Your task to perform on an android device: Show me recent news Image 0: 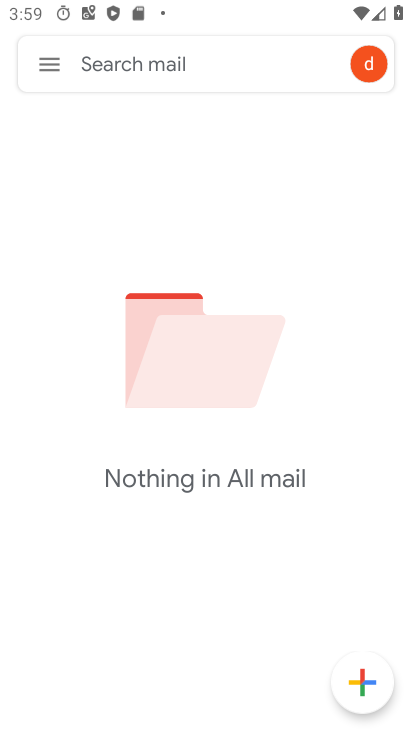
Step 0: press home button
Your task to perform on an android device: Show me recent news Image 1: 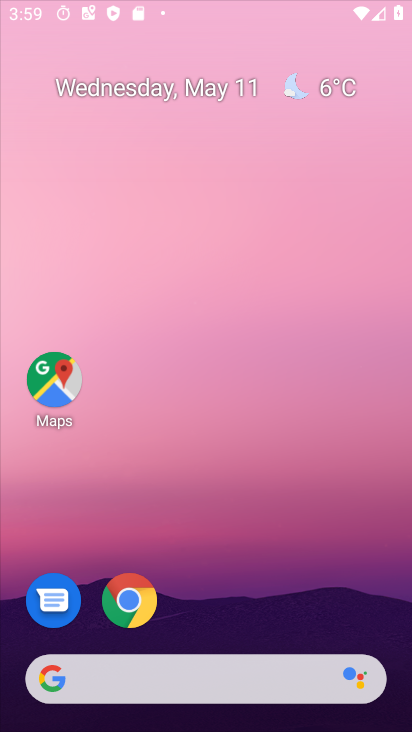
Step 1: click (408, 611)
Your task to perform on an android device: Show me recent news Image 2: 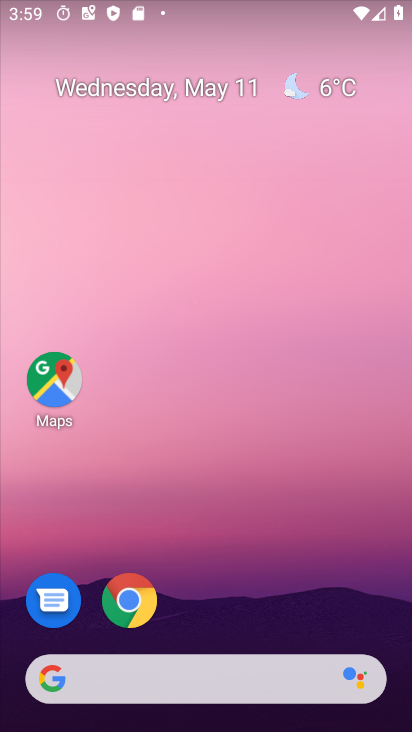
Step 2: task complete